Your task to perform on an android device: turn off wifi Image 0: 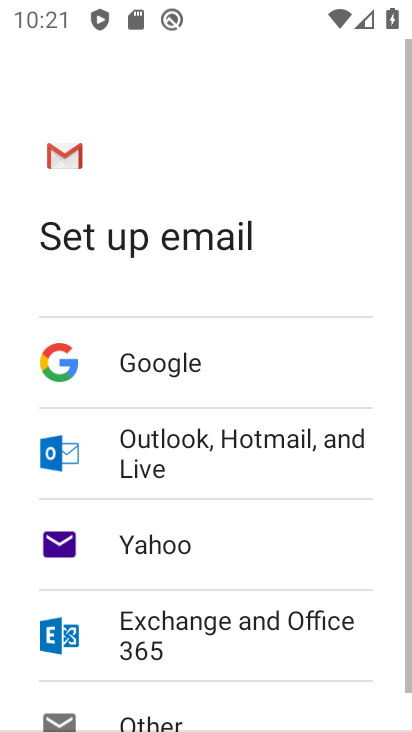
Step 0: press back button
Your task to perform on an android device: turn off wifi Image 1: 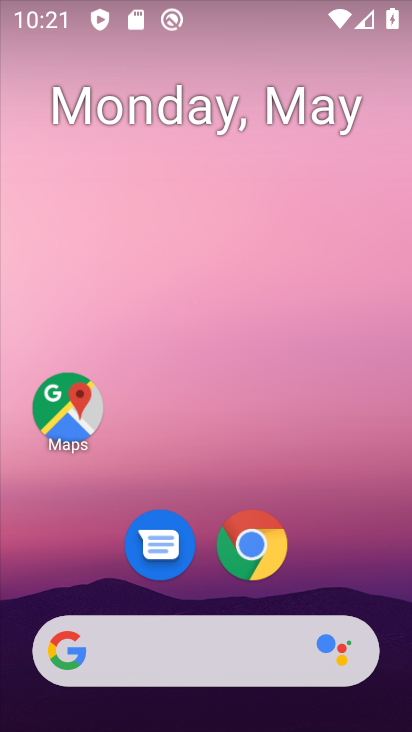
Step 1: drag from (310, 582) to (246, 106)
Your task to perform on an android device: turn off wifi Image 2: 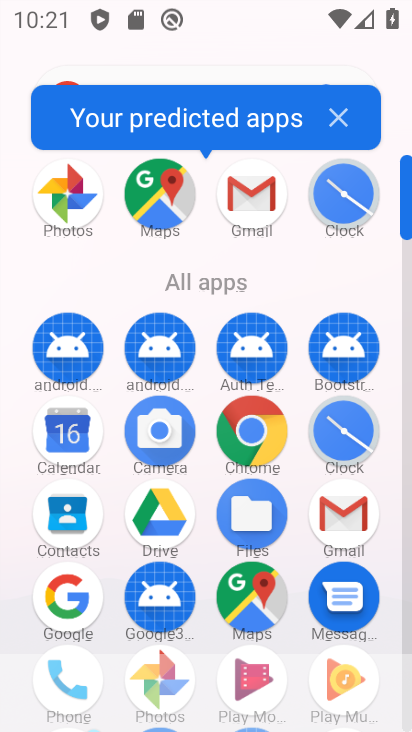
Step 2: drag from (196, 358) to (217, 299)
Your task to perform on an android device: turn off wifi Image 3: 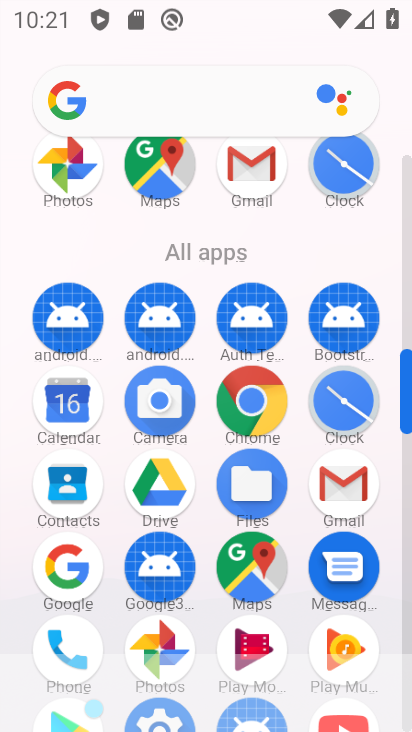
Step 3: drag from (209, 532) to (208, 277)
Your task to perform on an android device: turn off wifi Image 4: 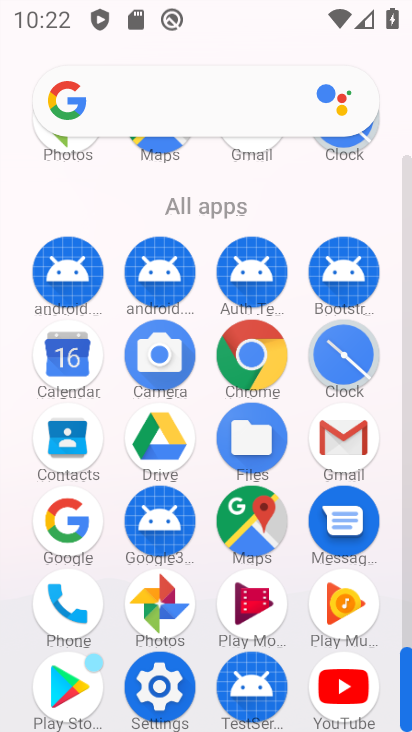
Step 4: click (157, 683)
Your task to perform on an android device: turn off wifi Image 5: 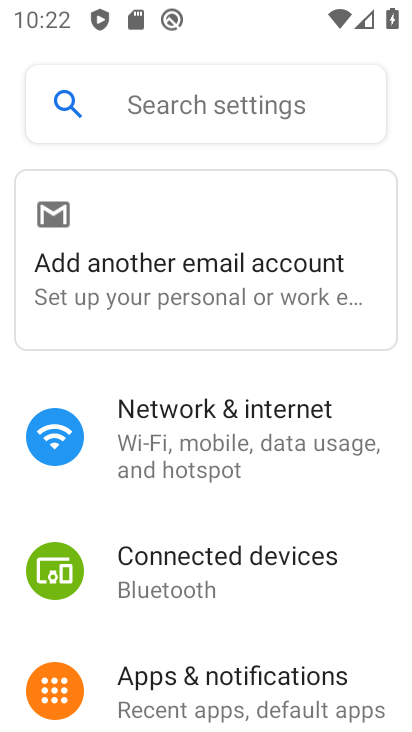
Step 5: click (240, 416)
Your task to perform on an android device: turn off wifi Image 6: 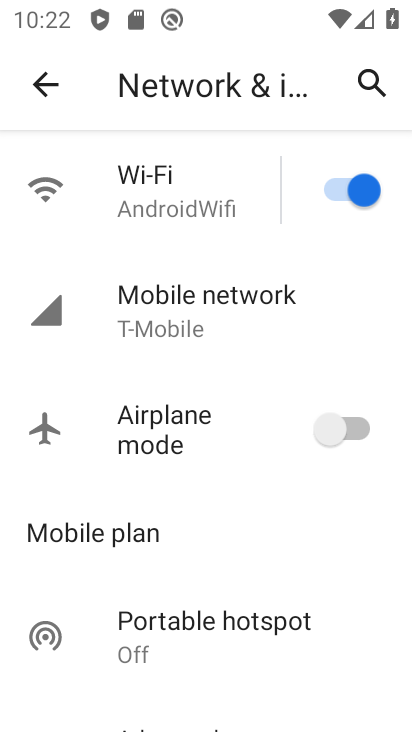
Step 6: click (378, 186)
Your task to perform on an android device: turn off wifi Image 7: 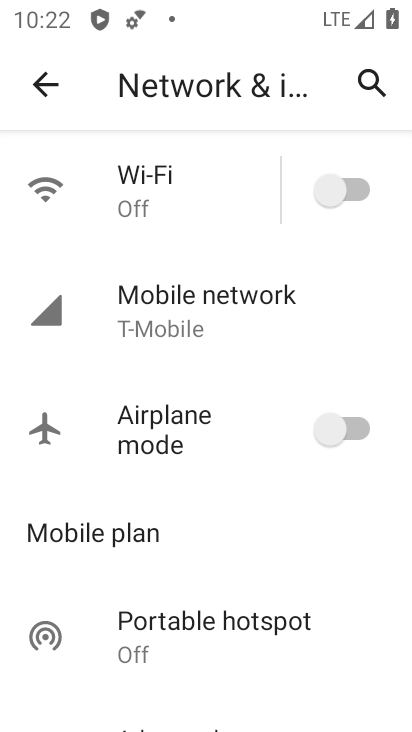
Step 7: task complete